Your task to perform on an android device: turn off data saver in the chrome app Image 0: 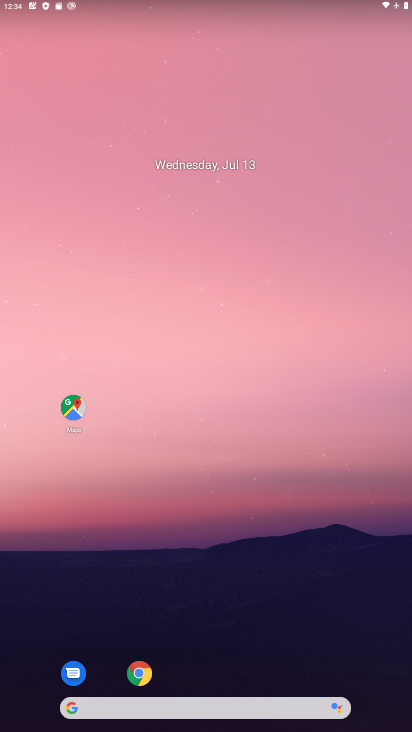
Step 0: press home button
Your task to perform on an android device: turn off data saver in the chrome app Image 1: 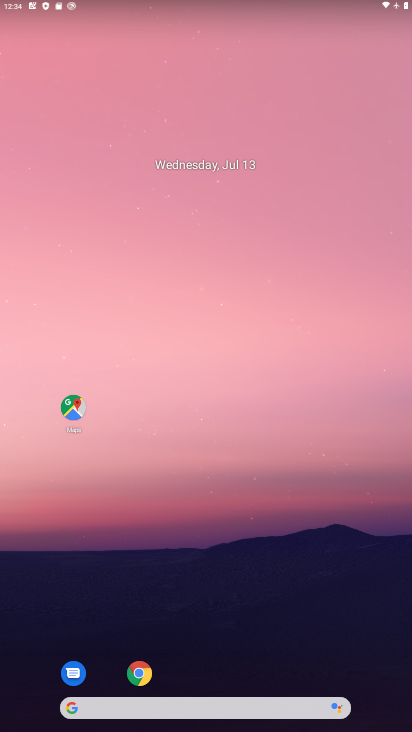
Step 1: click (145, 682)
Your task to perform on an android device: turn off data saver in the chrome app Image 2: 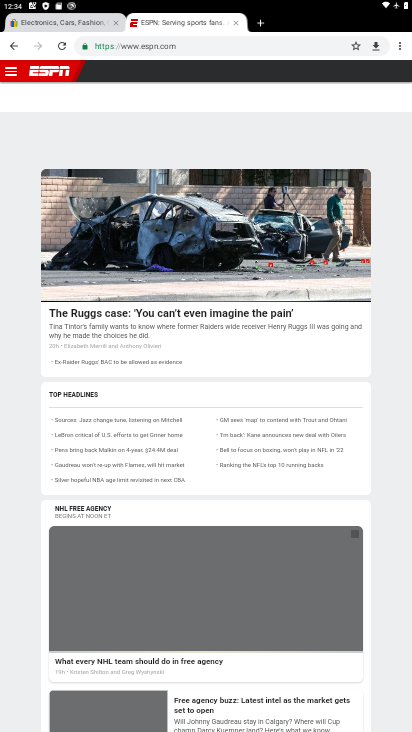
Step 2: click (263, 28)
Your task to perform on an android device: turn off data saver in the chrome app Image 3: 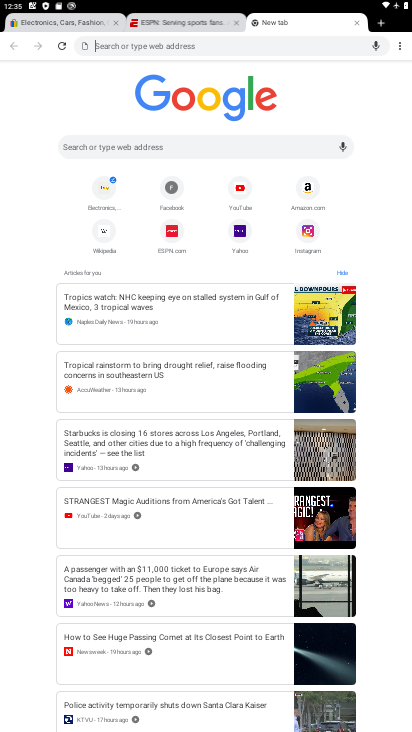
Step 3: click (398, 54)
Your task to perform on an android device: turn off data saver in the chrome app Image 4: 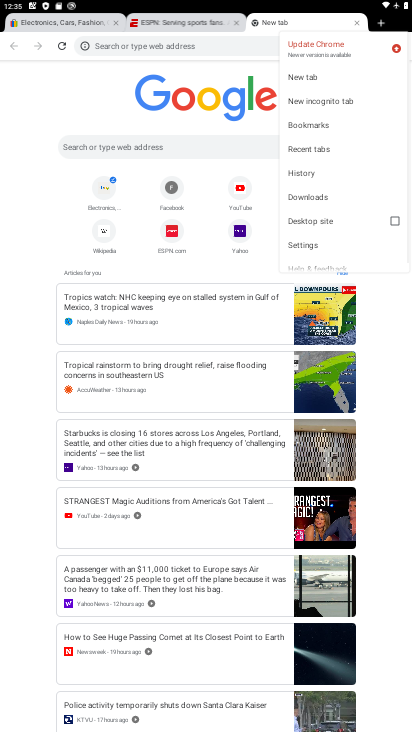
Step 4: click (320, 244)
Your task to perform on an android device: turn off data saver in the chrome app Image 5: 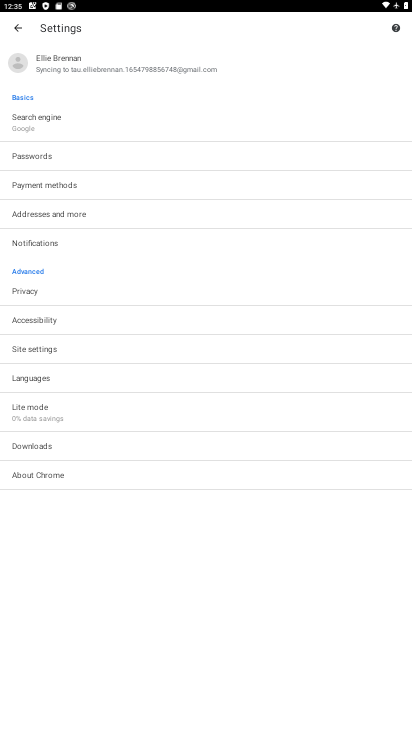
Step 5: click (138, 414)
Your task to perform on an android device: turn off data saver in the chrome app Image 6: 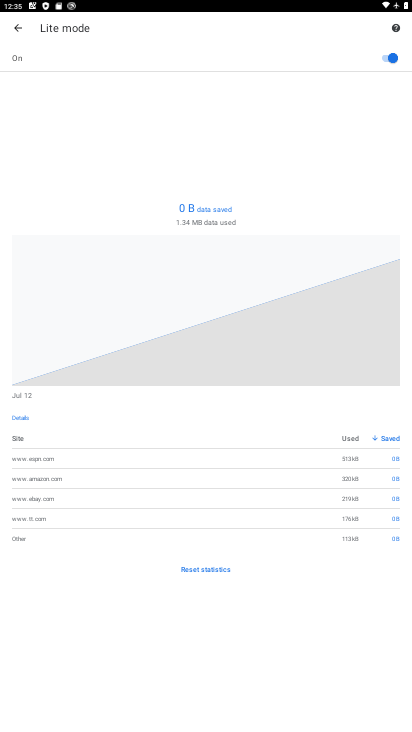
Step 6: click (377, 57)
Your task to perform on an android device: turn off data saver in the chrome app Image 7: 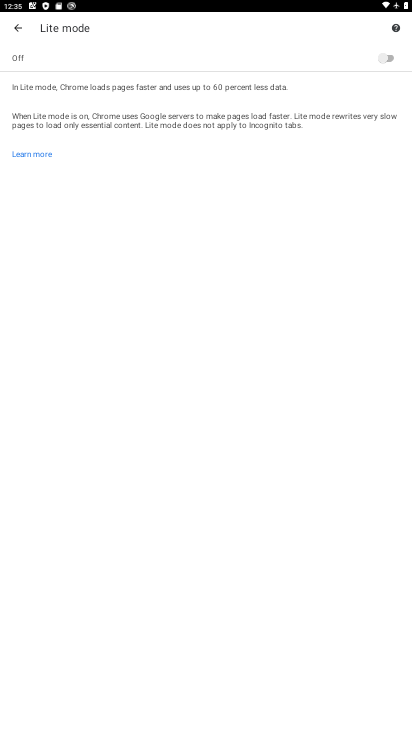
Step 7: task complete